Your task to perform on an android device: turn vacation reply on in the gmail app Image 0: 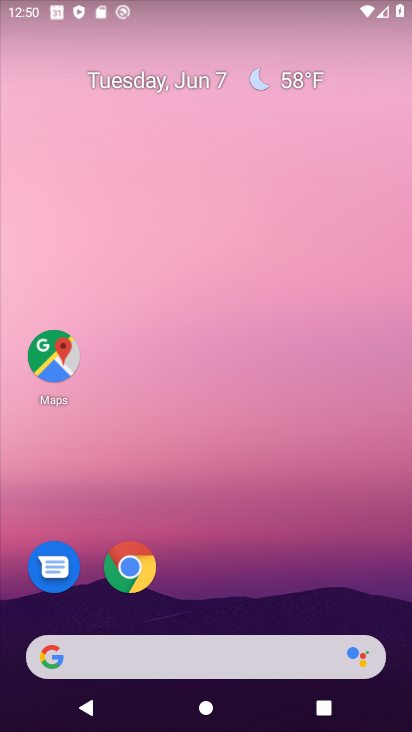
Step 0: drag from (396, 679) to (321, 210)
Your task to perform on an android device: turn vacation reply on in the gmail app Image 1: 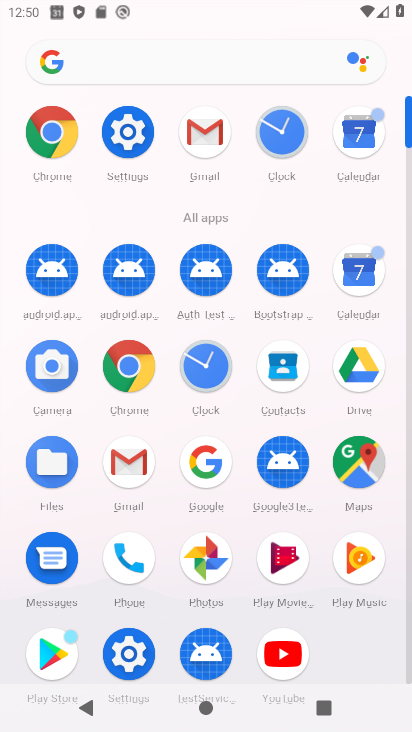
Step 1: click (122, 473)
Your task to perform on an android device: turn vacation reply on in the gmail app Image 2: 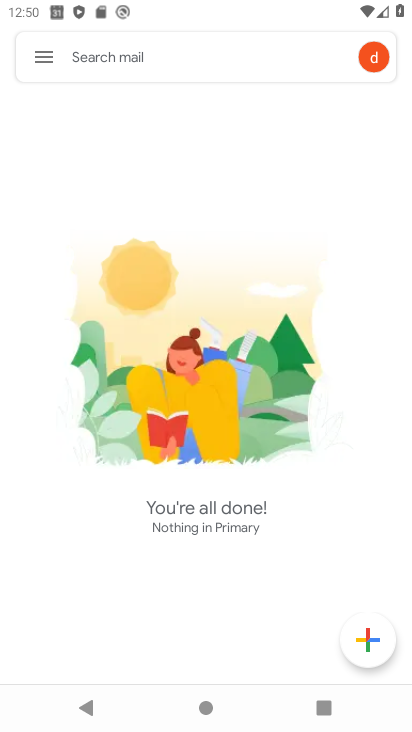
Step 2: click (29, 62)
Your task to perform on an android device: turn vacation reply on in the gmail app Image 3: 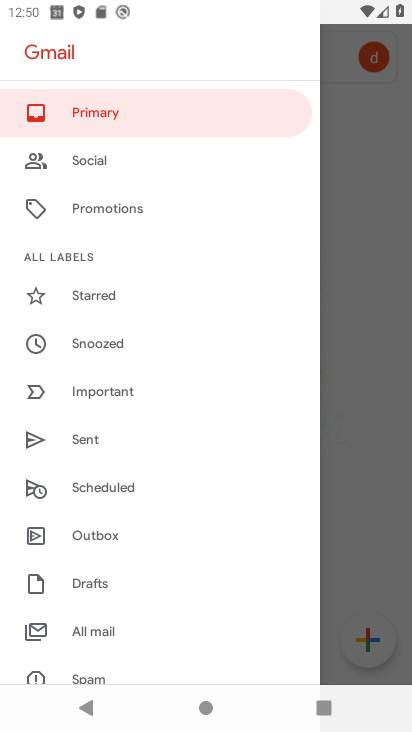
Step 3: drag from (180, 599) to (179, 271)
Your task to perform on an android device: turn vacation reply on in the gmail app Image 4: 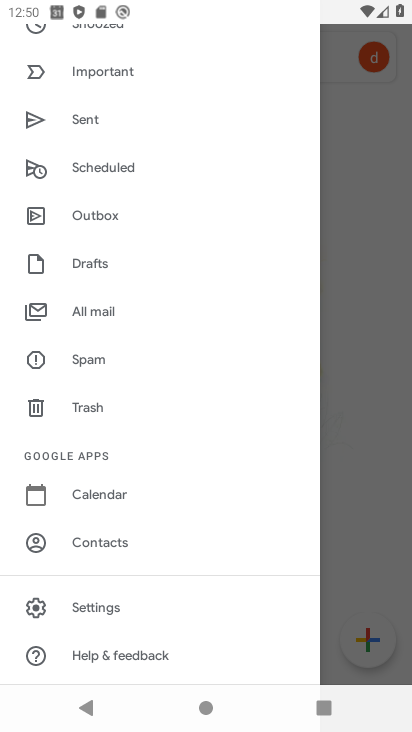
Step 4: click (107, 611)
Your task to perform on an android device: turn vacation reply on in the gmail app Image 5: 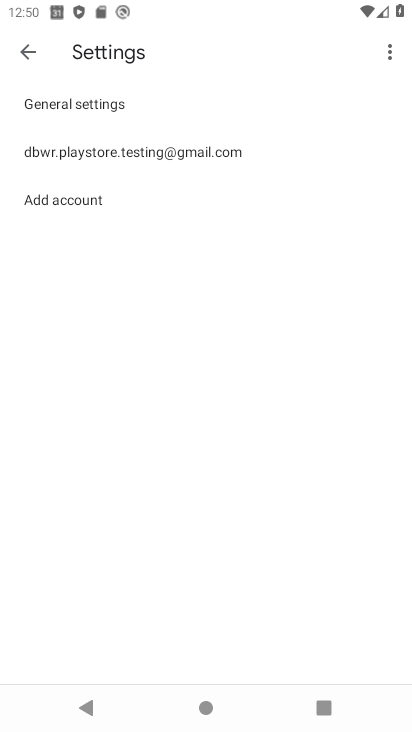
Step 5: click (49, 145)
Your task to perform on an android device: turn vacation reply on in the gmail app Image 6: 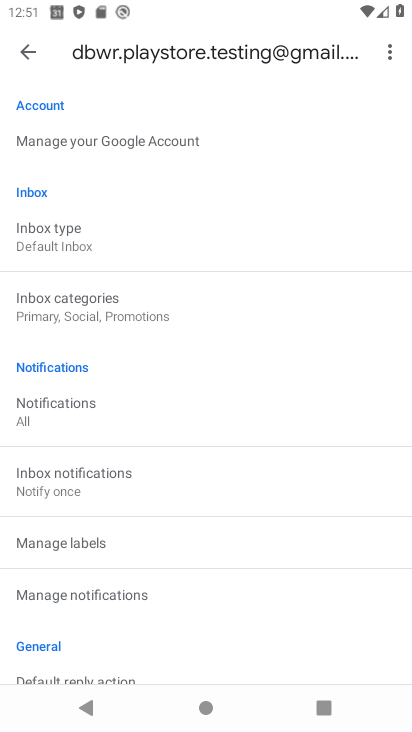
Step 6: task complete